Your task to perform on an android device: allow cookies in the chrome app Image 0: 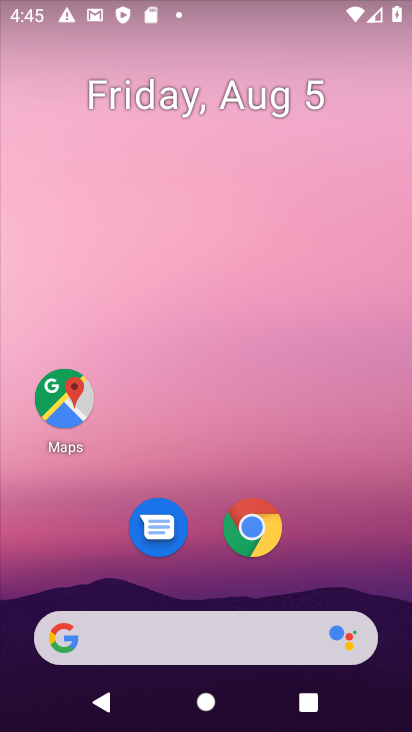
Step 0: drag from (231, 544) to (275, 291)
Your task to perform on an android device: allow cookies in the chrome app Image 1: 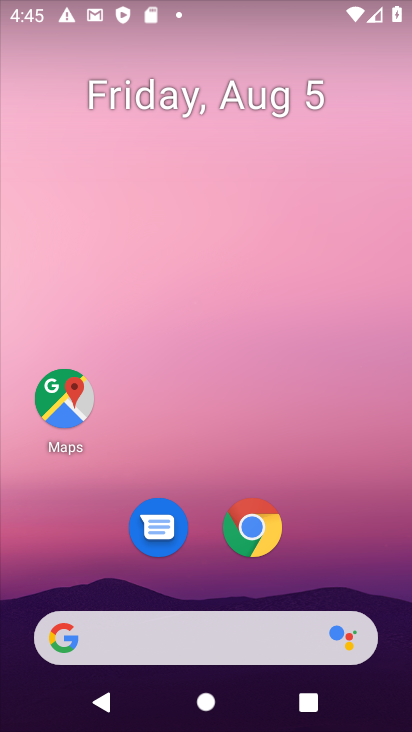
Step 1: drag from (186, 572) to (190, 118)
Your task to perform on an android device: allow cookies in the chrome app Image 2: 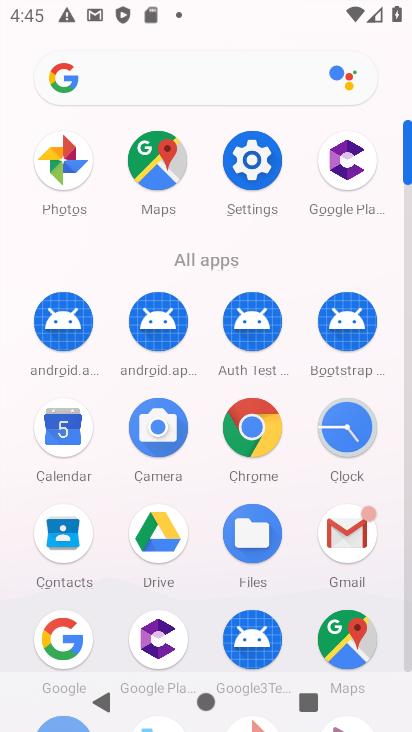
Step 2: click (252, 426)
Your task to perform on an android device: allow cookies in the chrome app Image 3: 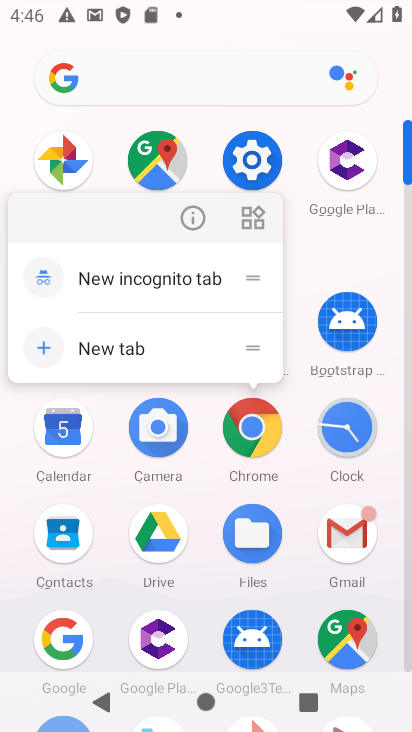
Step 3: click (197, 217)
Your task to perform on an android device: allow cookies in the chrome app Image 4: 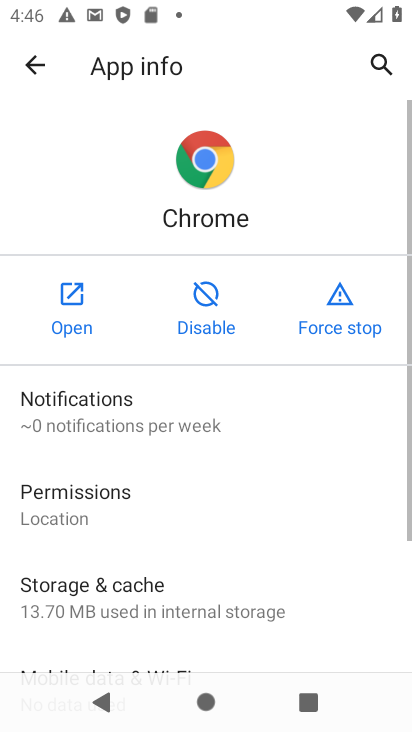
Step 4: click (71, 286)
Your task to perform on an android device: allow cookies in the chrome app Image 5: 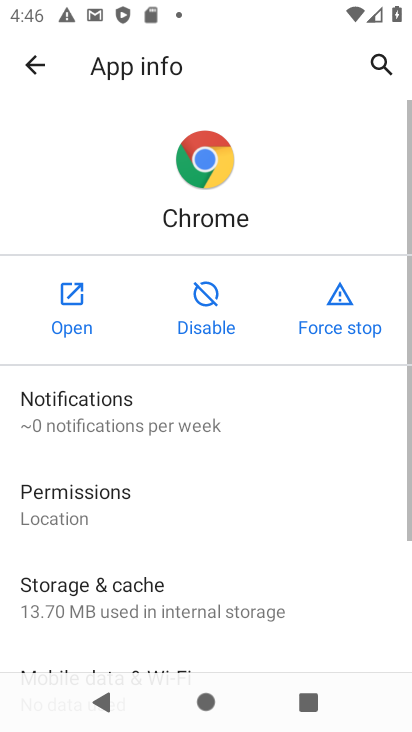
Step 5: click (71, 286)
Your task to perform on an android device: allow cookies in the chrome app Image 6: 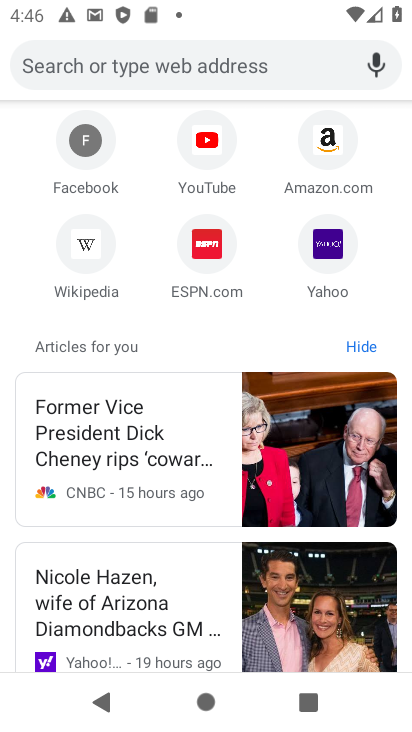
Step 6: drag from (260, 154) to (285, 508)
Your task to perform on an android device: allow cookies in the chrome app Image 7: 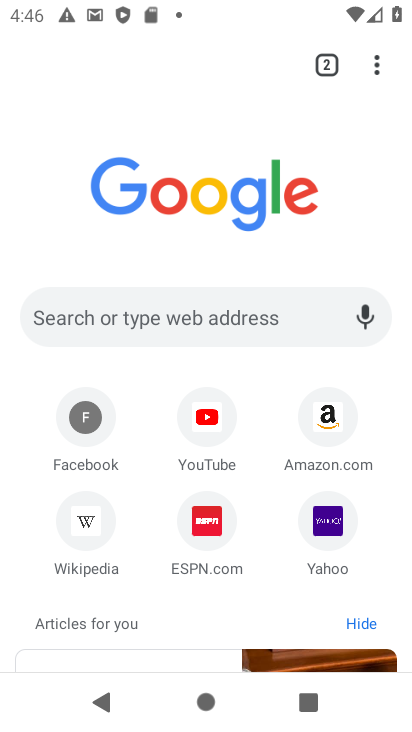
Step 7: drag from (373, 63) to (216, 552)
Your task to perform on an android device: allow cookies in the chrome app Image 8: 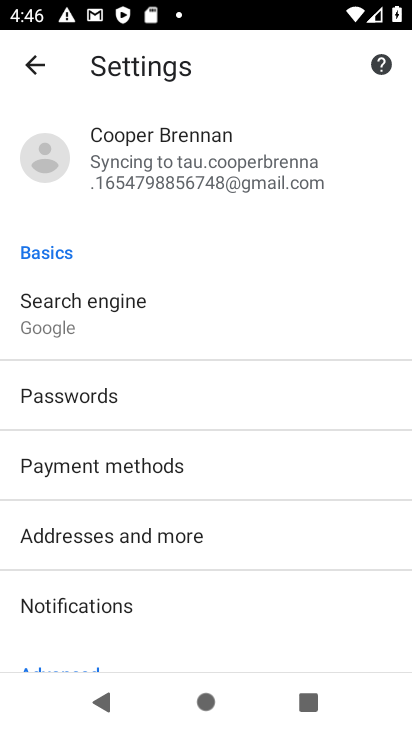
Step 8: drag from (172, 492) to (171, 56)
Your task to perform on an android device: allow cookies in the chrome app Image 9: 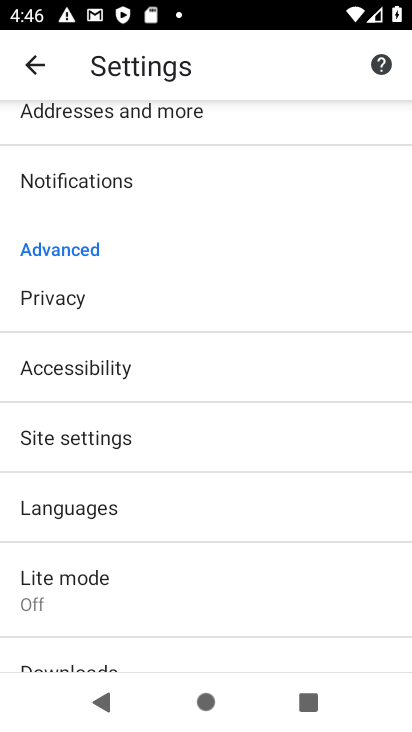
Step 9: click (114, 431)
Your task to perform on an android device: allow cookies in the chrome app Image 10: 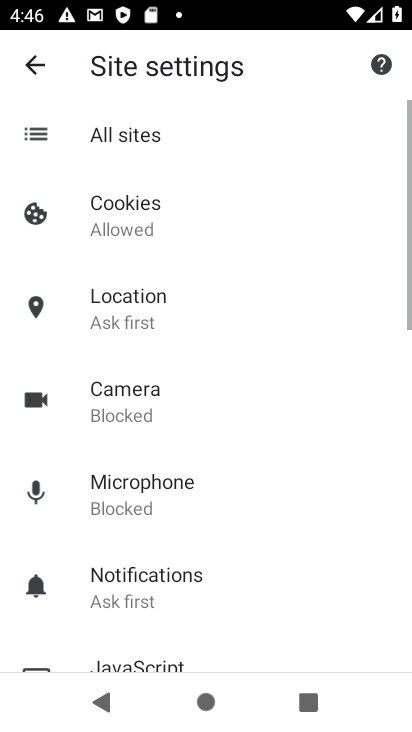
Step 10: click (115, 172)
Your task to perform on an android device: allow cookies in the chrome app Image 11: 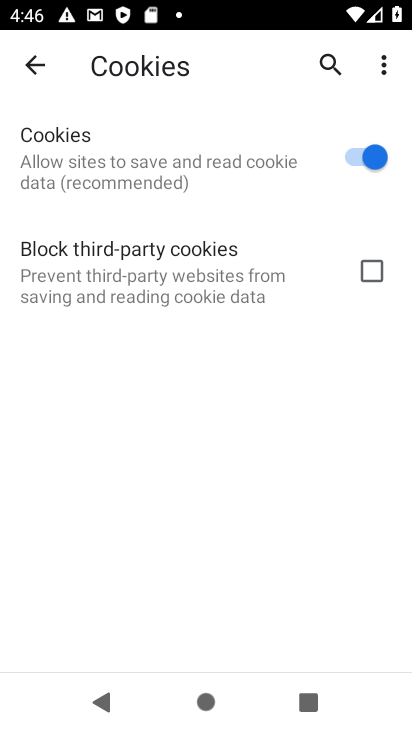
Step 11: task complete